Your task to perform on an android device: Search for seafood restaurants on Google Maps Image 0: 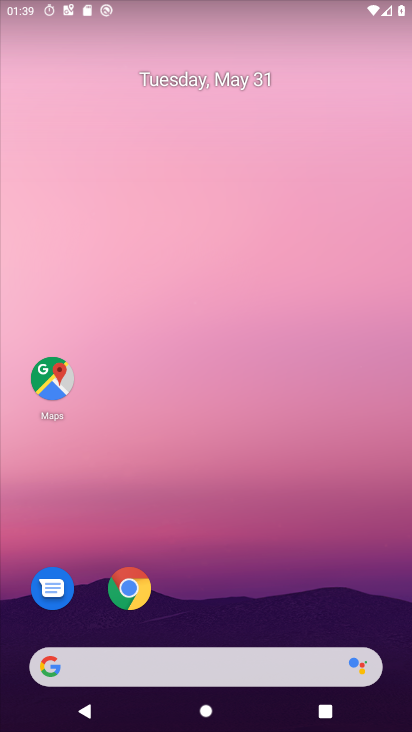
Step 0: drag from (286, 545) to (385, 22)
Your task to perform on an android device: Search for seafood restaurants on Google Maps Image 1: 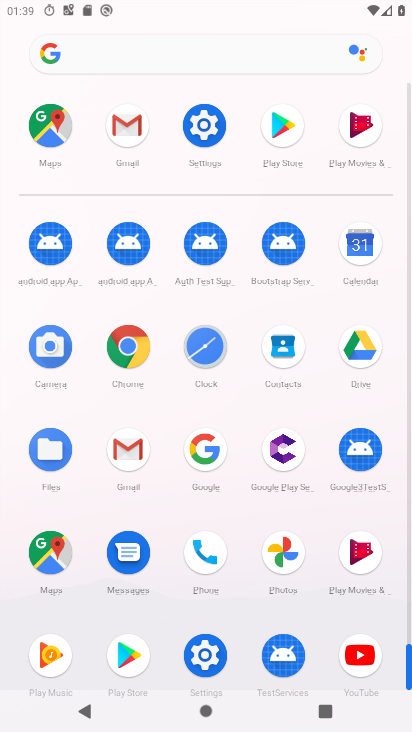
Step 1: click (50, 565)
Your task to perform on an android device: Search for seafood restaurants on Google Maps Image 2: 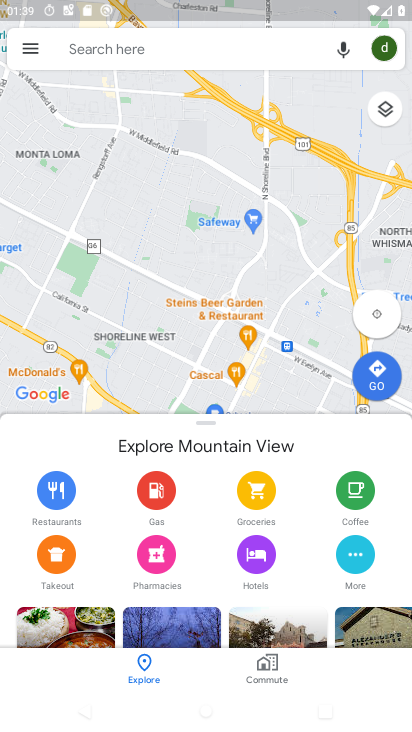
Step 2: click (143, 55)
Your task to perform on an android device: Search for seafood restaurants on Google Maps Image 3: 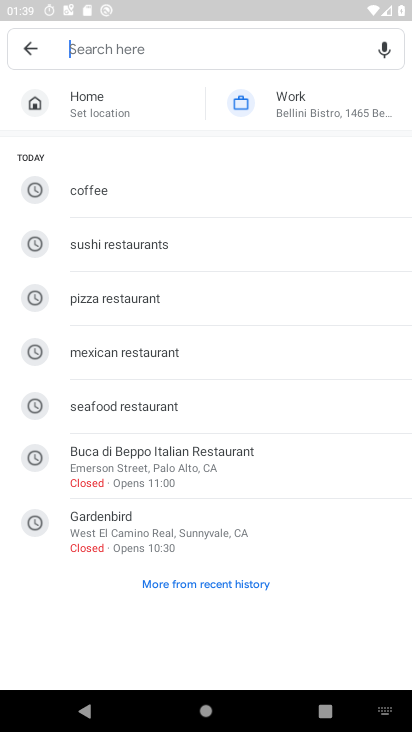
Step 3: click (187, 411)
Your task to perform on an android device: Search for seafood restaurants on Google Maps Image 4: 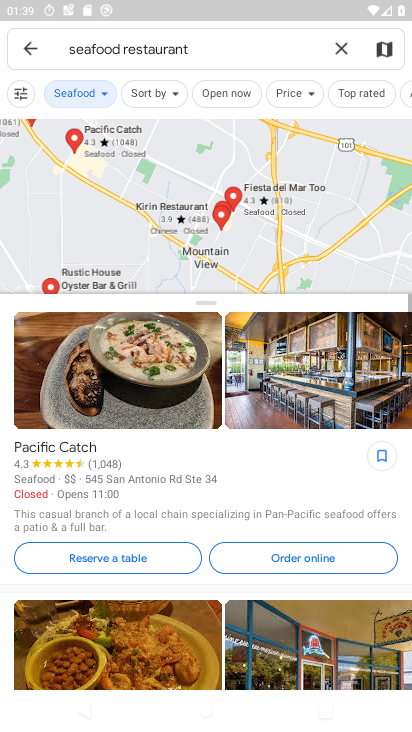
Step 4: task complete